Your task to perform on an android device: check the backup settings in the google photos Image 0: 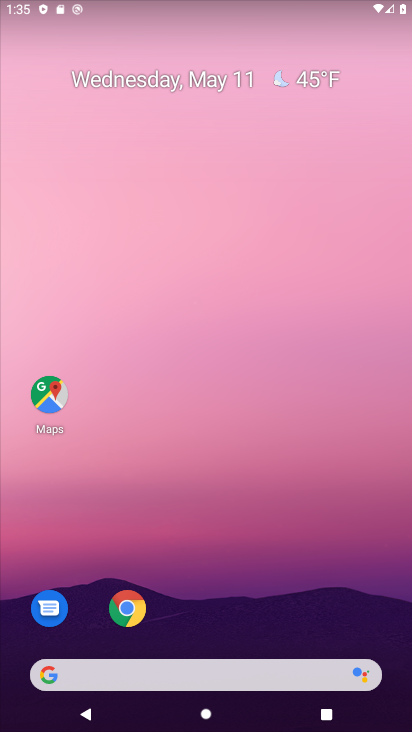
Step 0: drag from (222, 612) to (219, 117)
Your task to perform on an android device: check the backup settings in the google photos Image 1: 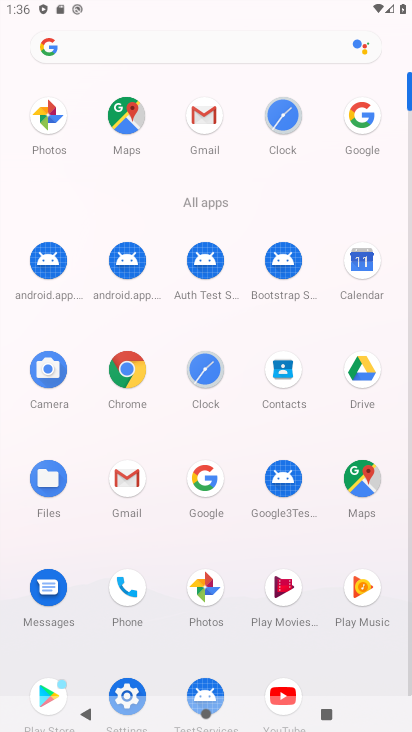
Step 1: click (206, 588)
Your task to perform on an android device: check the backup settings in the google photos Image 2: 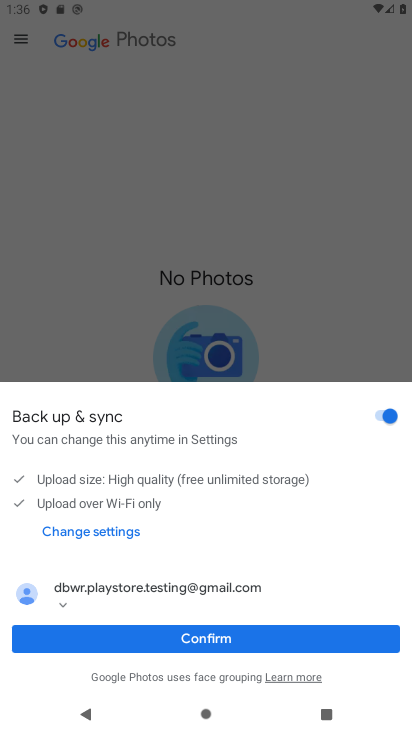
Step 2: click (210, 636)
Your task to perform on an android device: check the backup settings in the google photos Image 3: 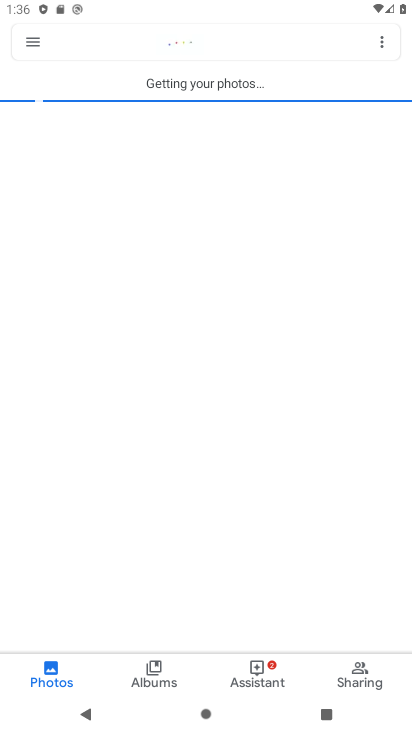
Step 3: click (34, 44)
Your task to perform on an android device: check the backup settings in the google photos Image 4: 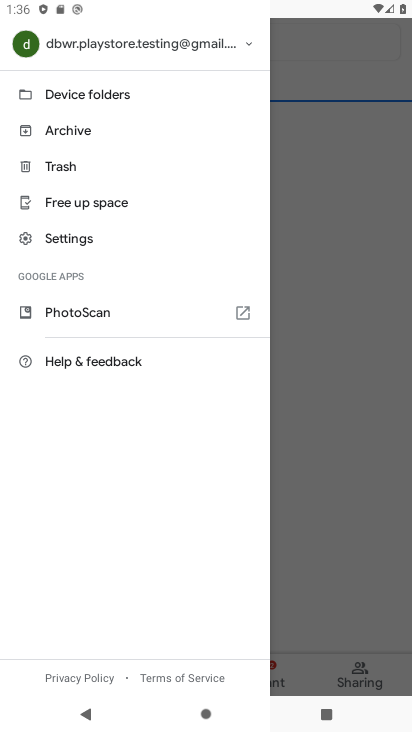
Step 4: click (95, 237)
Your task to perform on an android device: check the backup settings in the google photos Image 5: 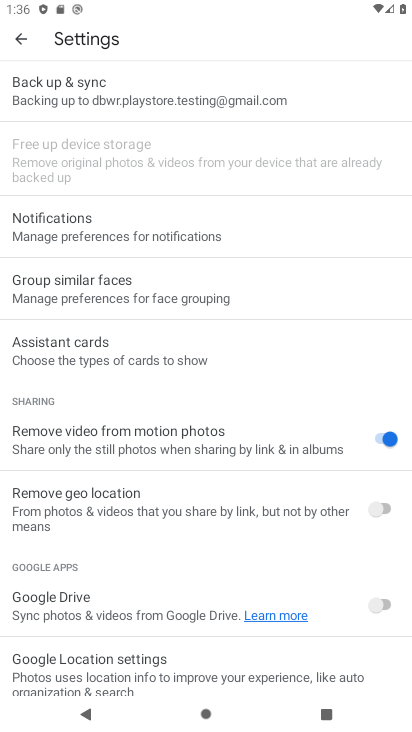
Step 5: click (122, 89)
Your task to perform on an android device: check the backup settings in the google photos Image 6: 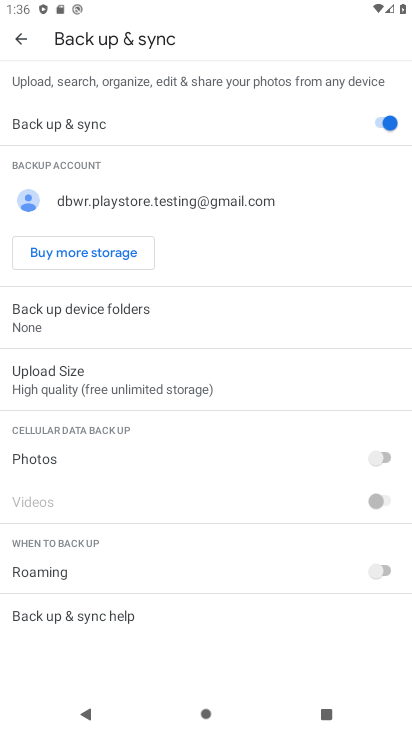
Step 6: task complete